Your task to perform on an android device: Open display settings Image 0: 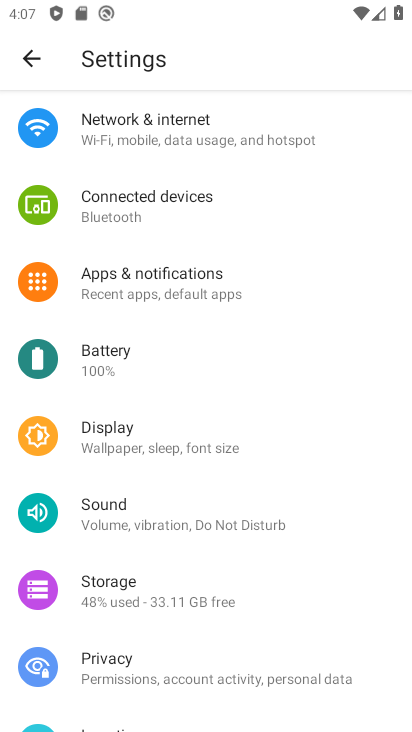
Step 0: click (115, 457)
Your task to perform on an android device: Open display settings Image 1: 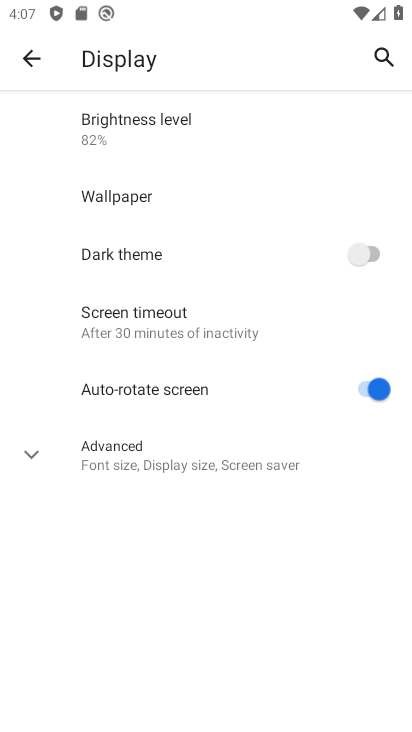
Step 1: task complete